Your task to perform on an android device: toggle sleep mode Image 0: 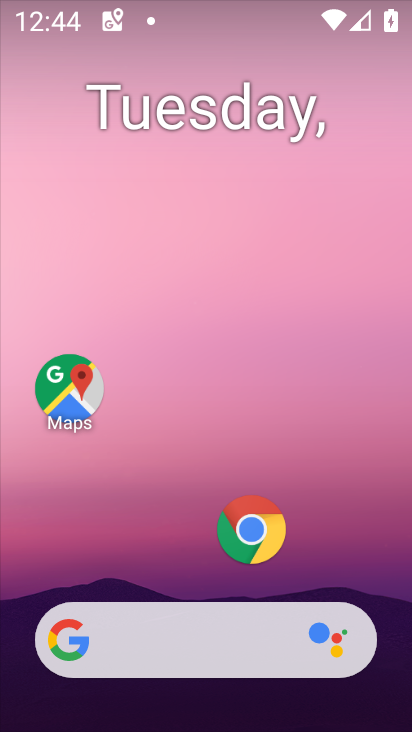
Step 0: drag from (237, 675) to (224, 14)
Your task to perform on an android device: toggle sleep mode Image 1: 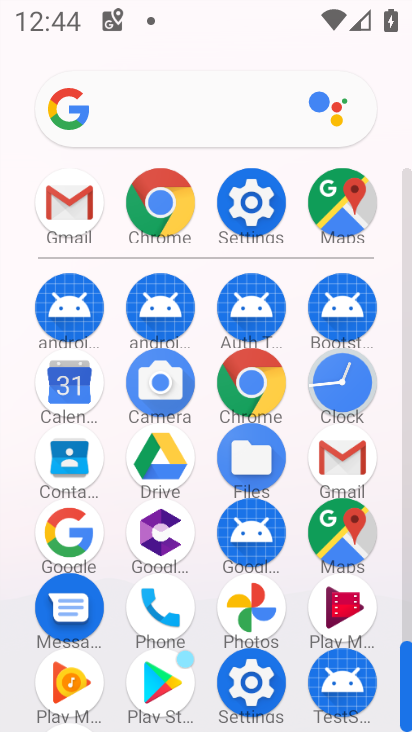
Step 1: click (246, 193)
Your task to perform on an android device: toggle sleep mode Image 2: 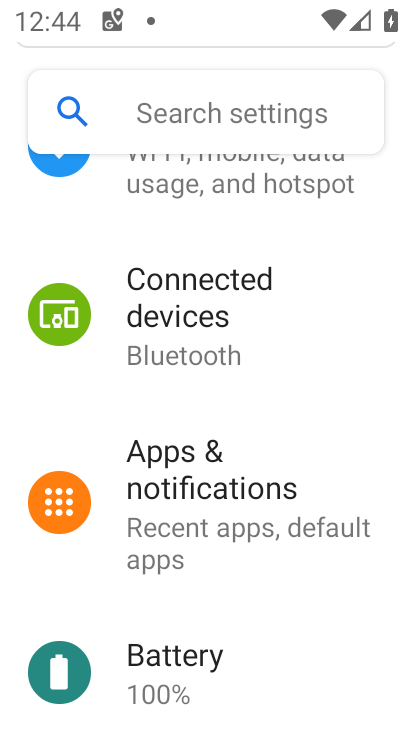
Step 2: click (149, 137)
Your task to perform on an android device: toggle sleep mode Image 3: 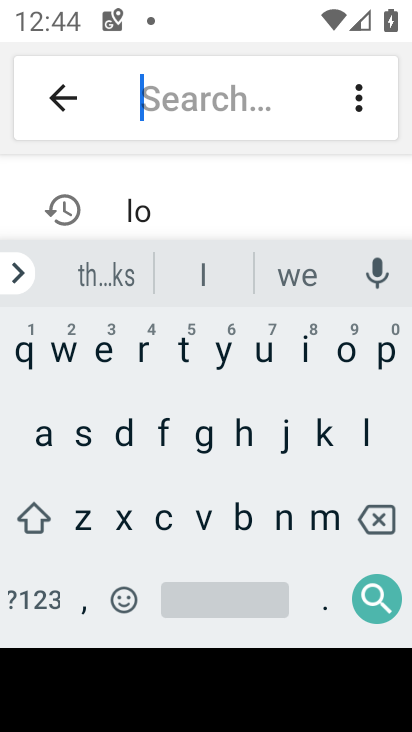
Step 3: click (76, 444)
Your task to perform on an android device: toggle sleep mode Image 4: 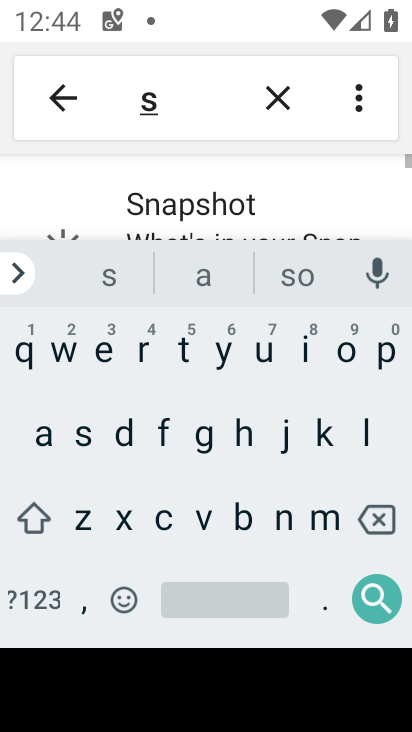
Step 4: click (375, 433)
Your task to perform on an android device: toggle sleep mode Image 5: 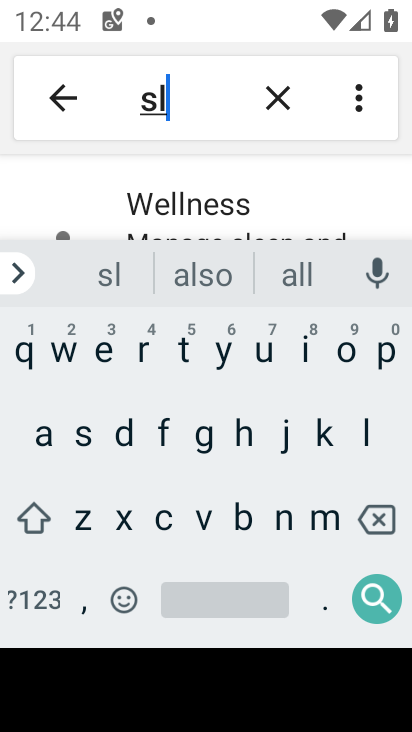
Step 5: click (180, 192)
Your task to perform on an android device: toggle sleep mode Image 6: 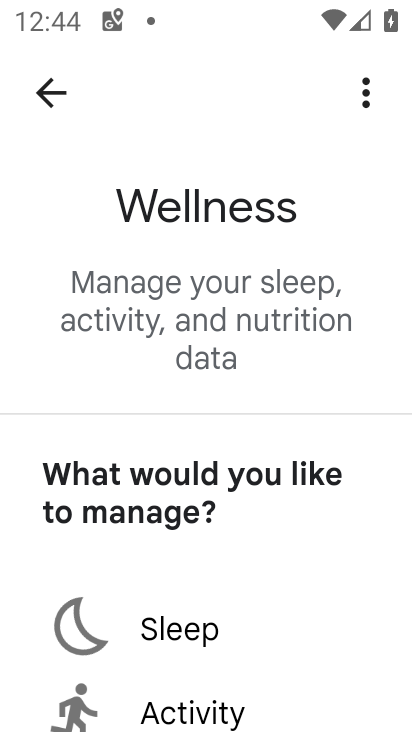
Step 6: click (195, 619)
Your task to perform on an android device: toggle sleep mode Image 7: 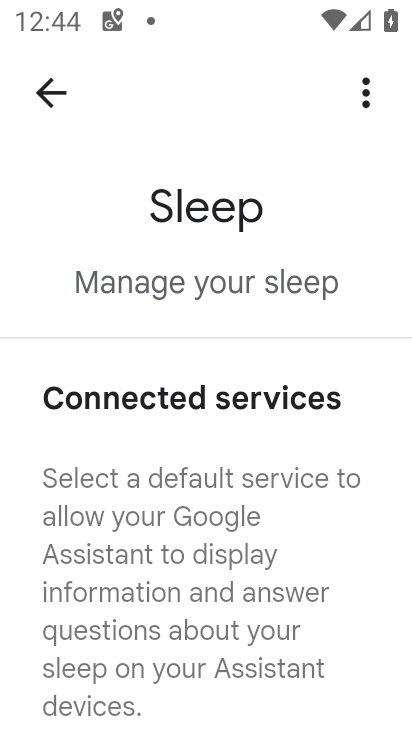
Step 7: task complete